Your task to perform on an android device: change notifications settings Image 0: 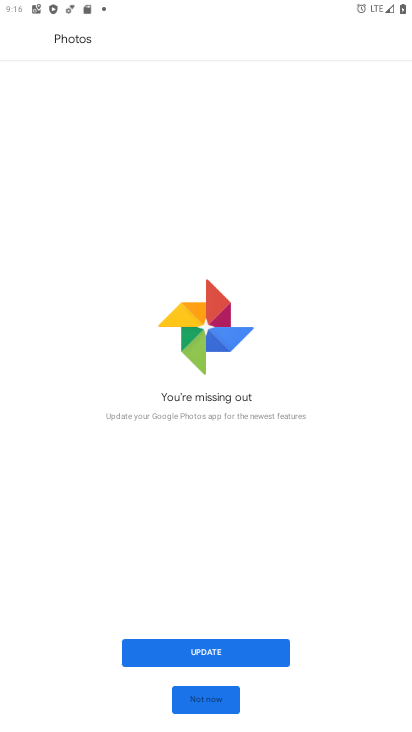
Step 0: press home button
Your task to perform on an android device: change notifications settings Image 1: 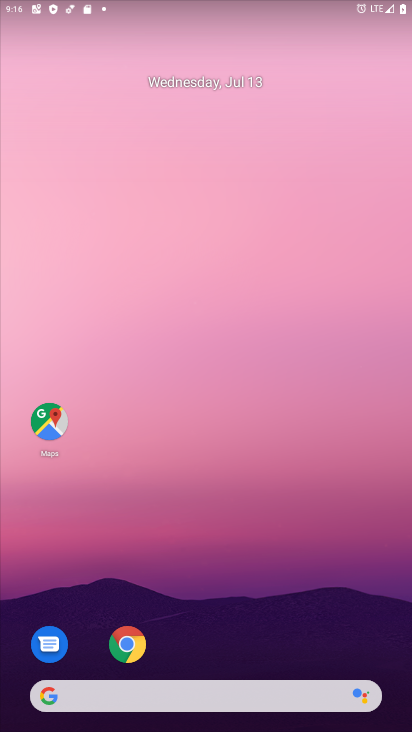
Step 1: drag from (176, 692) to (196, 172)
Your task to perform on an android device: change notifications settings Image 2: 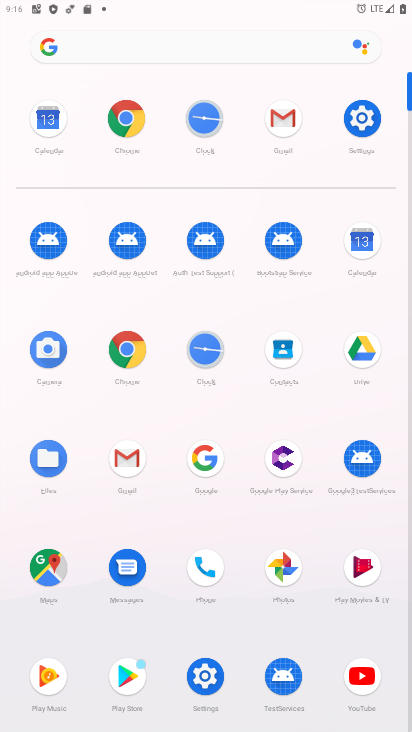
Step 2: click (368, 111)
Your task to perform on an android device: change notifications settings Image 3: 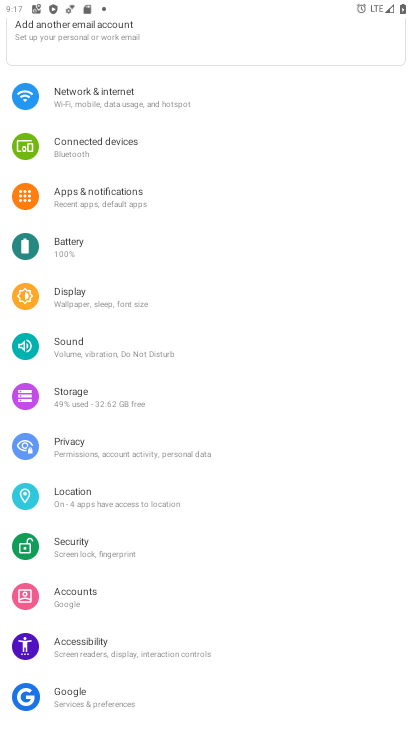
Step 3: click (119, 195)
Your task to perform on an android device: change notifications settings Image 4: 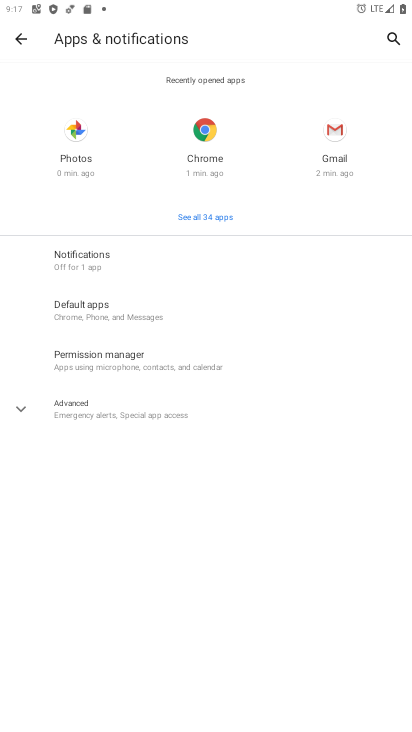
Step 4: click (93, 259)
Your task to perform on an android device: change notifications settings Image 5: 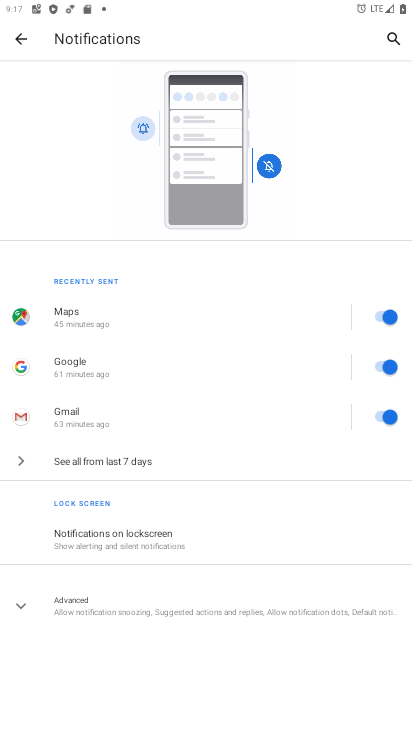
Step 5: click (136, 614)
Your task to perform on an android device: change notifications settings Image 6: 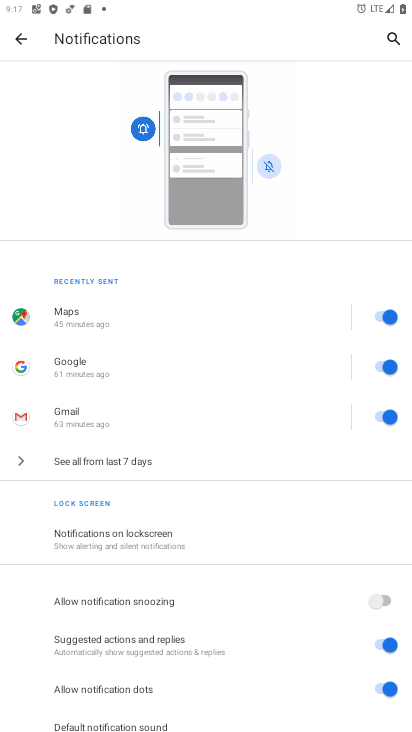
Step 6: click (390, 598)
Your task to perform on an android device: change notifications settings Image 7: 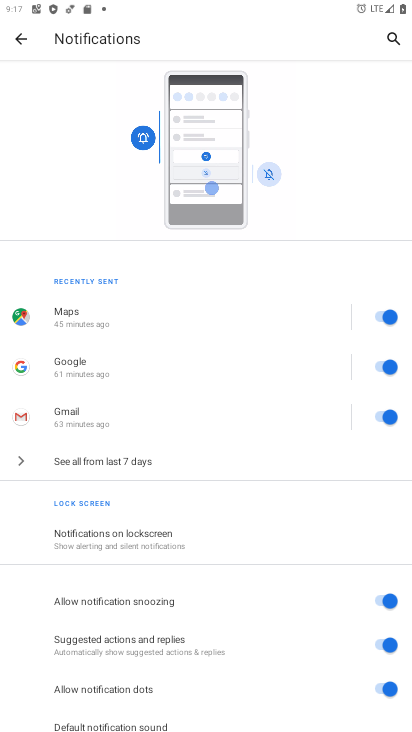
Step 7: task complete